Your task to perform on an android device: see sites visited before in the chrome app Image 0: 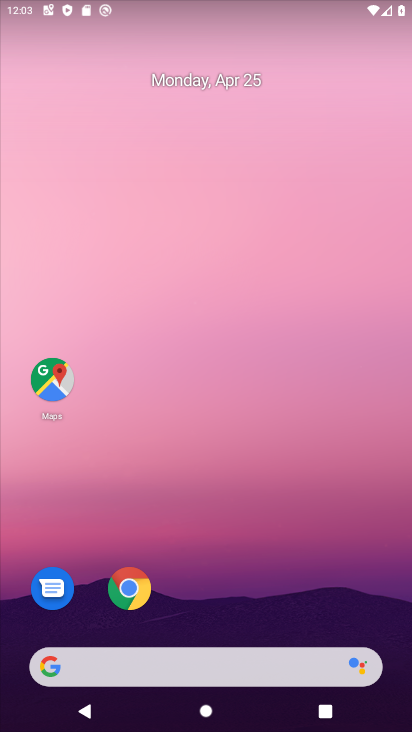
Step 0: click (139, 592)
Your task to perform on an android device: see sites visited before in the chrome app Image 1: 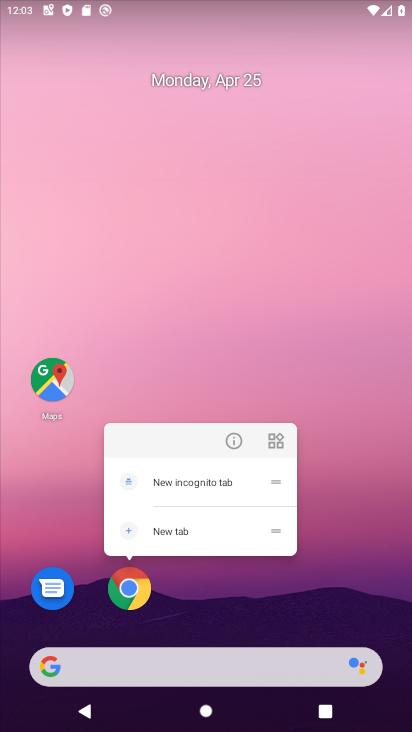
Step 1: click (143, 589)
Your task to perform on an android device: see sites visited before in the chrome app Image 2: 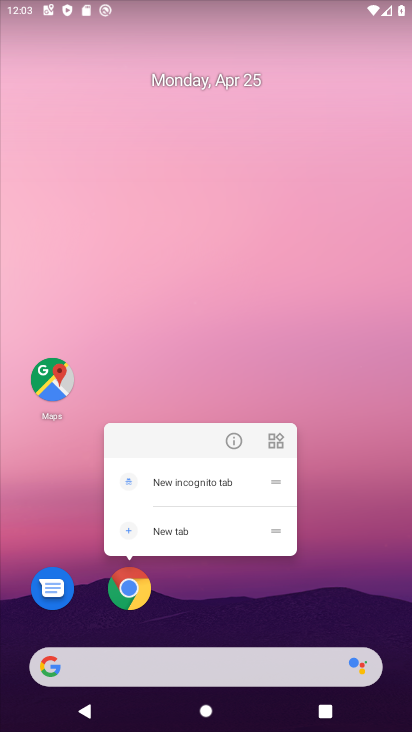
Step 2: click (135, 585)
Your task to perform on an android device: see sites visited before in the chrome app Image 3: 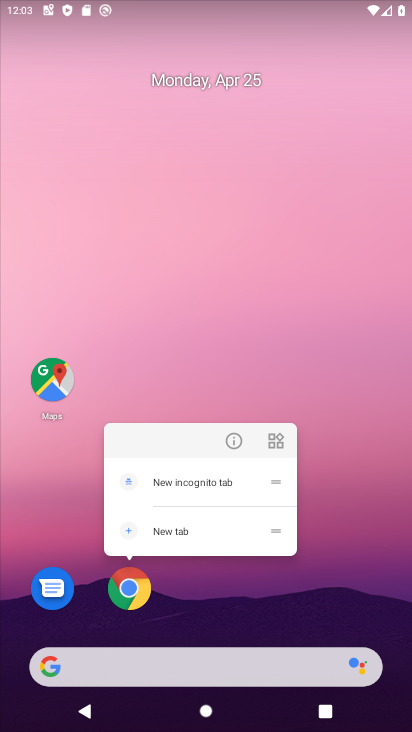
Step 3: click (121, 583)
Your task to perform on an android device: see sites visited before in the chrome app Image 4: 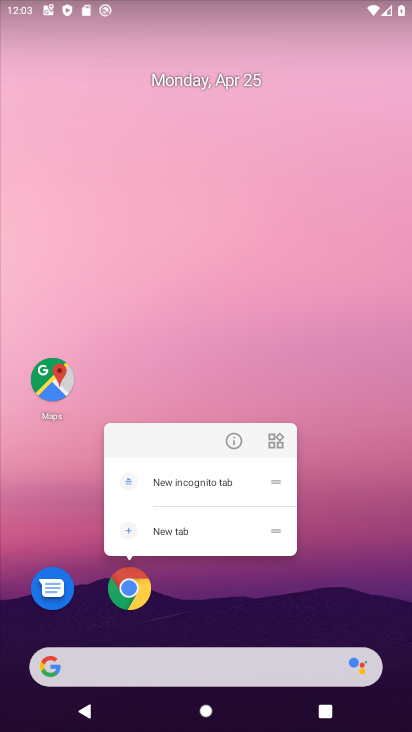
Step 4: click (124, 588)
Your task to perform on an android device: see sites visited before in the chrome app Image 5: 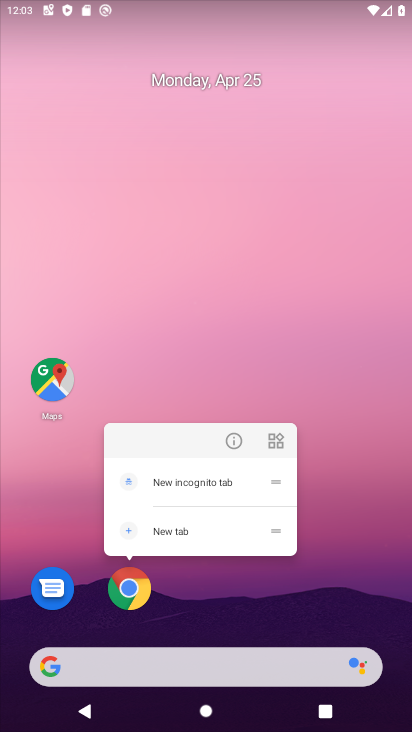
Step 5: click (134, 601)
Your task to perform on an android device: see sites visited before in the chrome app Image 6: 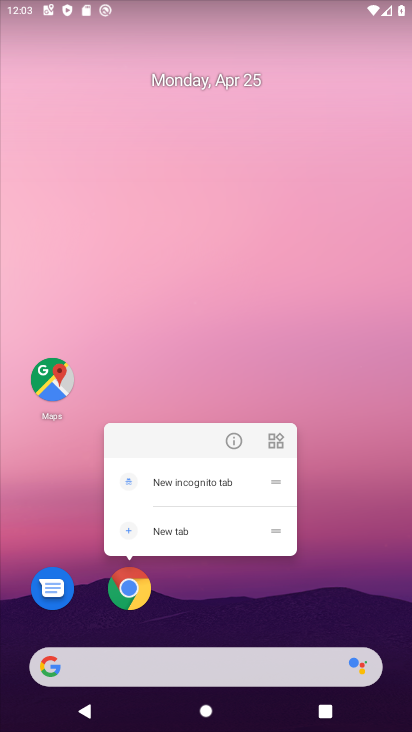
Step 6: click (131, 590)
Your task to perform on an android device: see sites visited before in the chrome app Image 7: 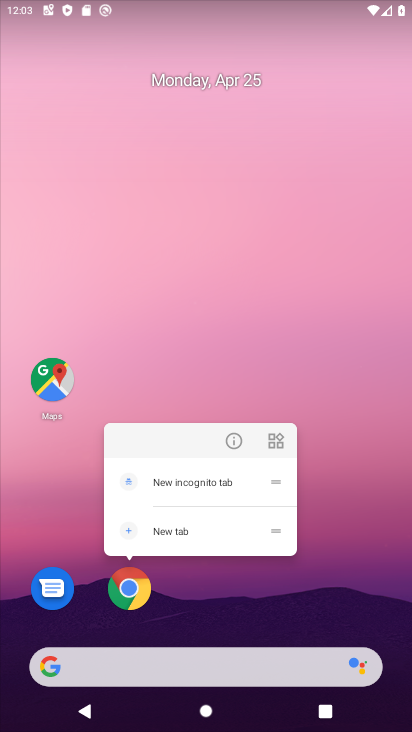
Step 7: click (138, 585)
Your task to perform on an android device: see sites visited before in the chrome app Image 8: 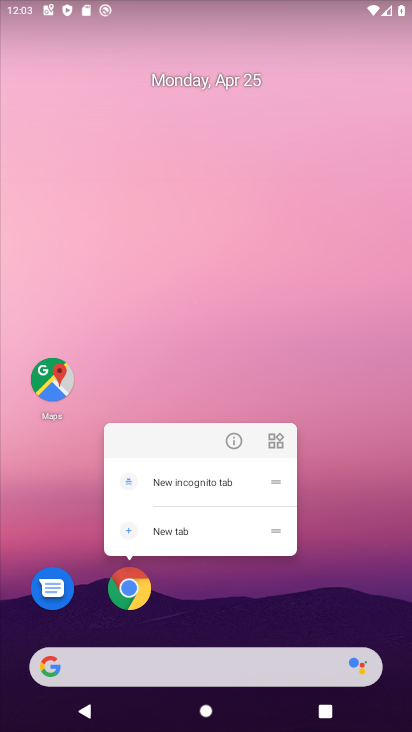
Step 8: click (132, 582)
Your task to perform on an android device: see sites visited before in the chrome app Image 9: 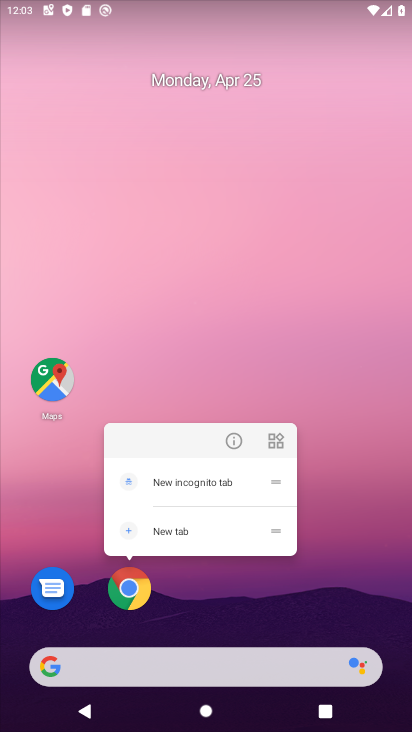
Step 9: click (132, 594)
Your task to perform on an android device: see sites visited before in the chrome app Image 10: 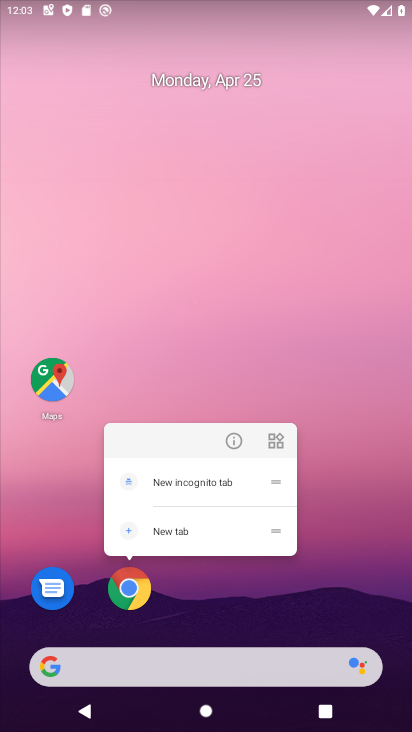
Step 10: click (131, 576)
Your task to perform on an android device: see sites visited before in the chrome app Image 11: 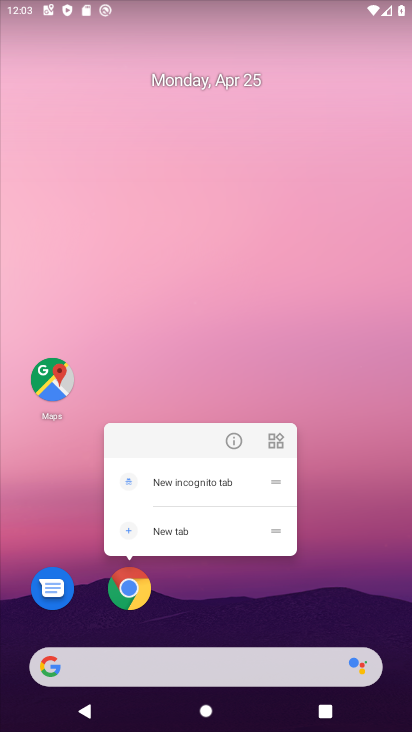
Step 11: click (136, 587)
Your task to perform on an android device: see sites visited before in the chrome app Image 12: 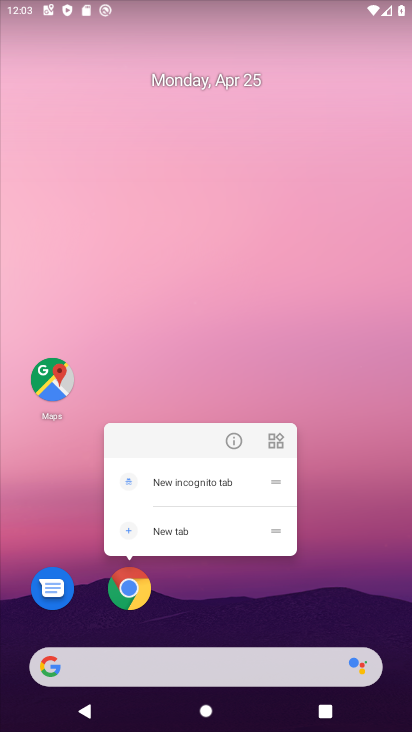
Step 12: click (148, 595)
Your task to perform on an android device: see sites visited before in the chrome app Image 13: 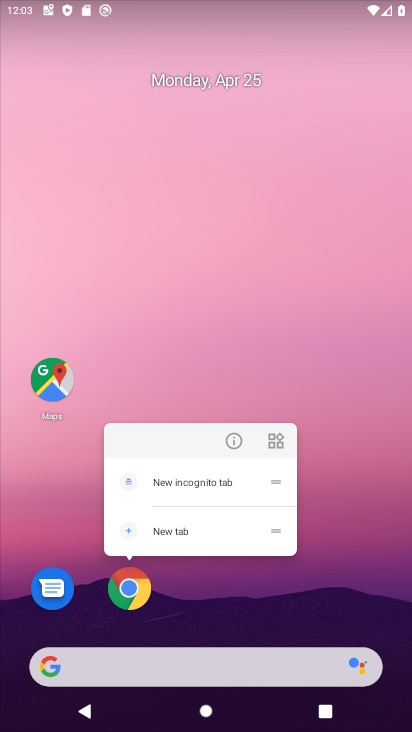
Step 13: click (142, 601)
Your task to perform on an android device: see sites visited before in the chrome app Image 14: 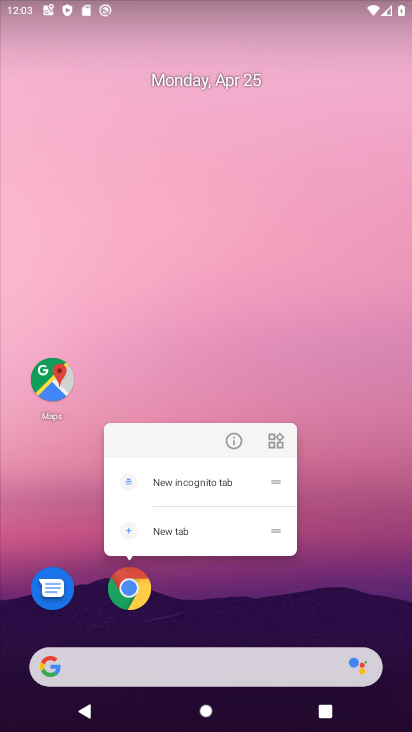
Step 14: click (128, 595)
Your task to perform on an android device: see sites visited before in the chrome app Image 15: 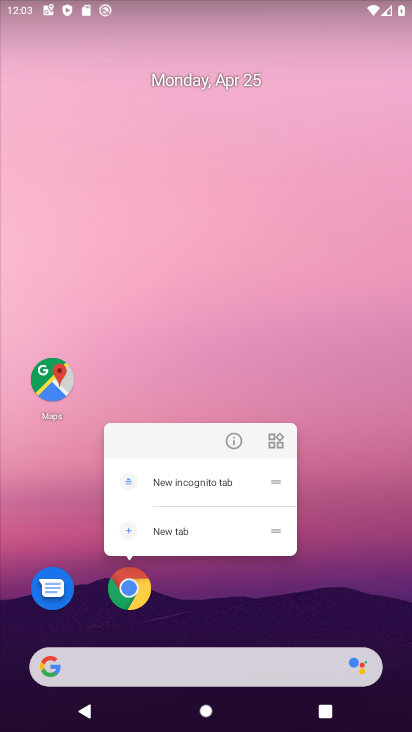
Step 15: drag from (330, 644) to (357, 79)
Your task to perform on an android device: see sites visited before in the chrome app Image 16: 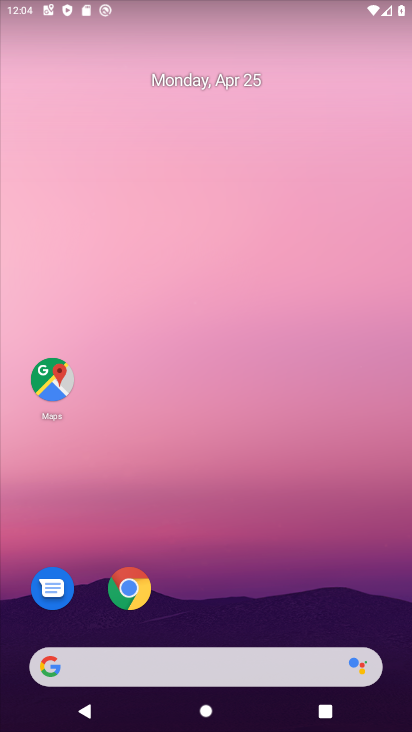
Step 16: drag from (187, 637) to (335, 19)
Your task to perform on an android device: see sites visited before in the chrome app Image 17: 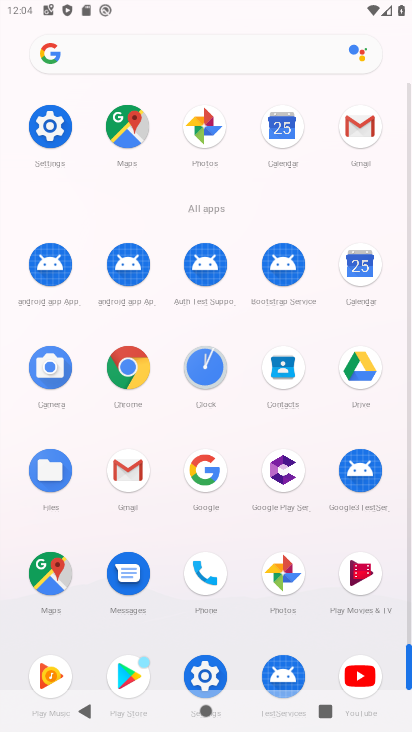
Step 17: click (120, 370)
Your task to perform on an android device: see sites visited before in the chrome app Image 18: 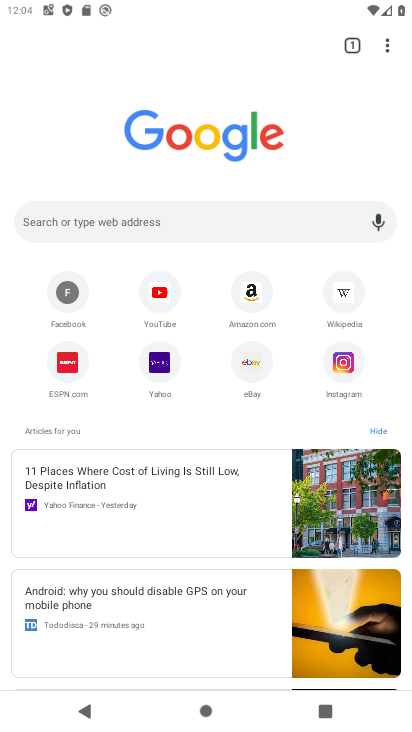
Step 18: drag from (395, 54) to (315, 248)
Your task to perform on an android device: see sites visited before in the chrome app Image 19: 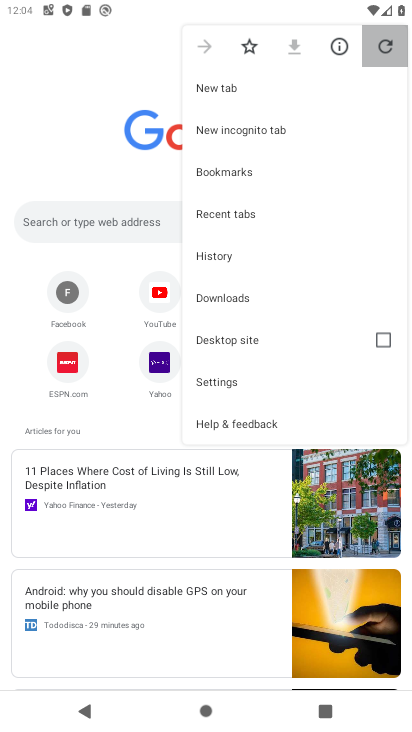
Step 19: click (286, 261)
Your task to perform on an android device: see sites visited before in the chrome app Image 20: 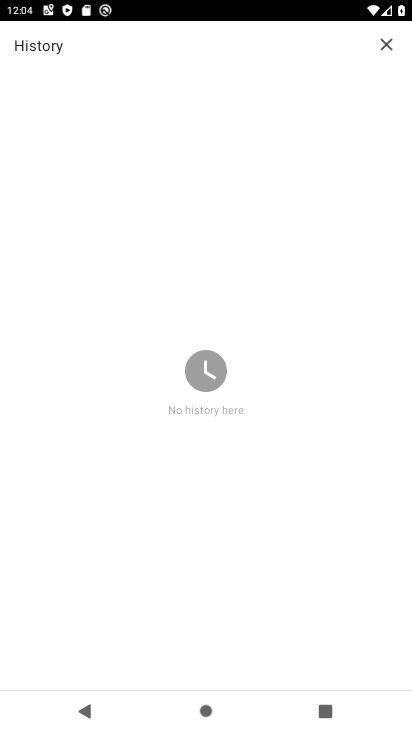
Step 20: task complete